Your task to perform on an android device: make emails show in primary in the gmail app Image 0: 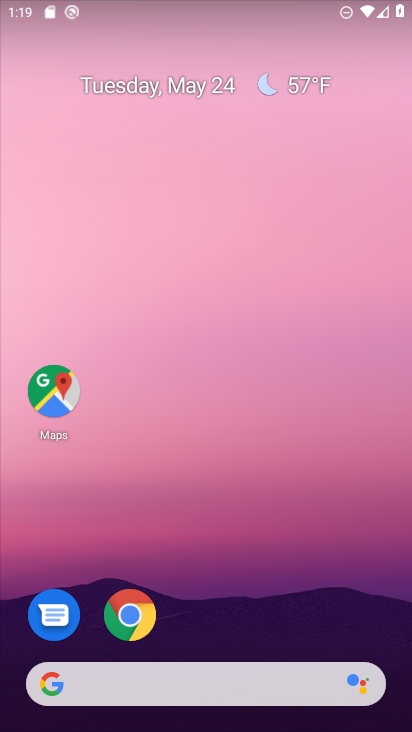
Step 0: drag from (179, 669) to (167, 271)
Your task to perform on an android device: make emails show in primary in the gmail app Image 1: 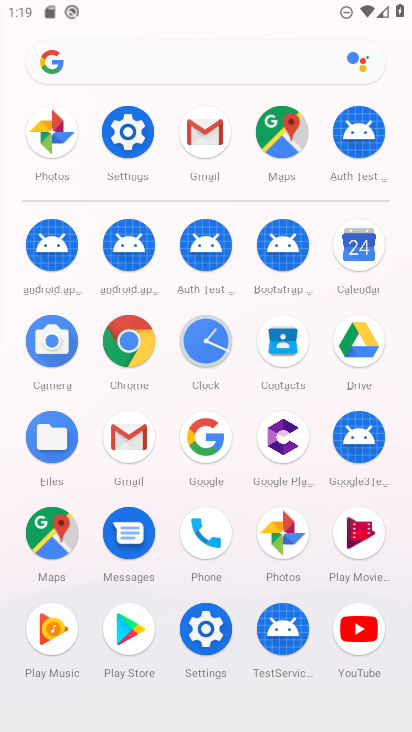
Step 1: click (124, 447)
Your task to perform on an android device: make emails show in primary in the gmail app Image 2: 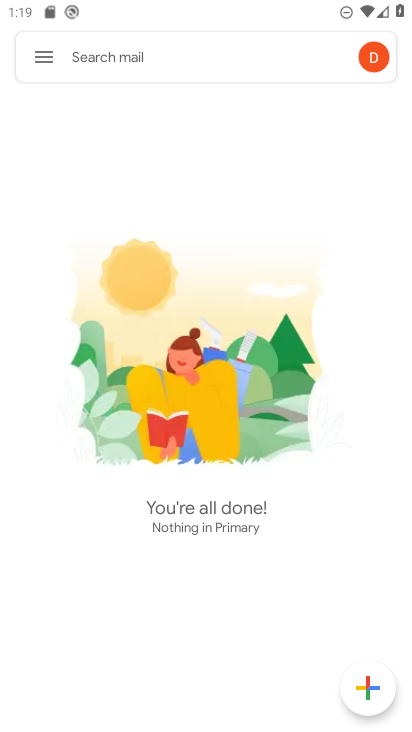
Step 2: click (47, 59)
Your task to perform on an android device: make emails show in primary in the gmail app Image 3: 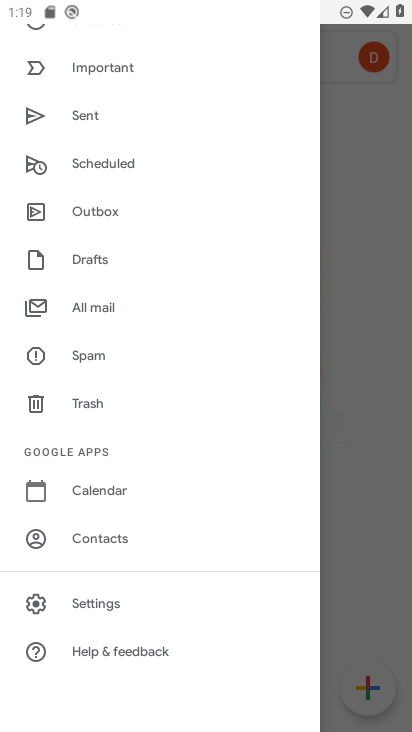
Step 3: click (92, 604)
Your task to perform on an android device: make emails show in primary in the gmail app Image 4: 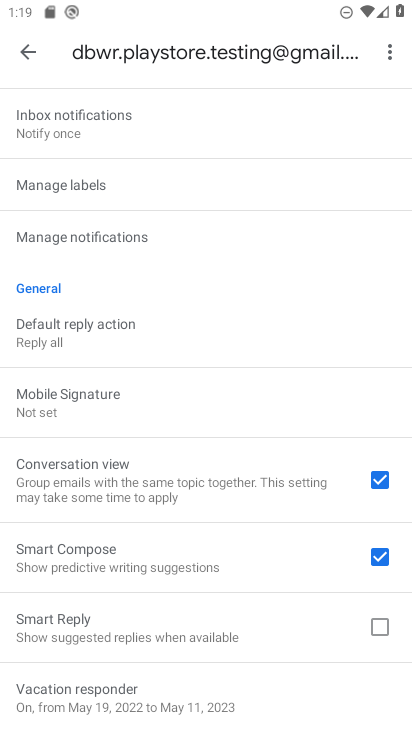
Step 4: click (92, 123)
Your task to perform on an android device: make emails show in primary in the gmail app Image 5: 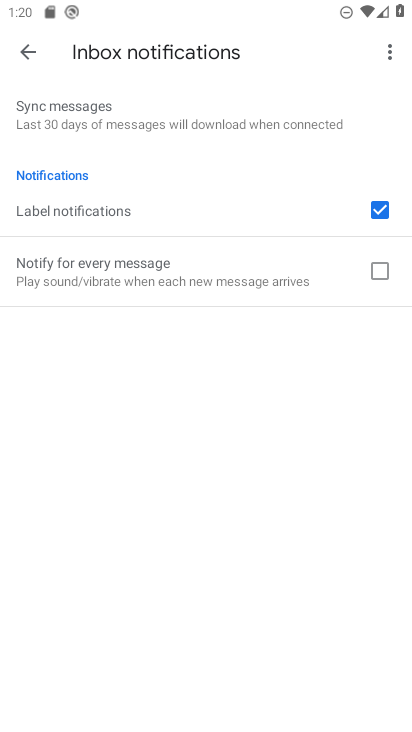
Step 5: click (16, 54)
Your task to perform on an android device: make emails show in primary in the gmail app Image 6: 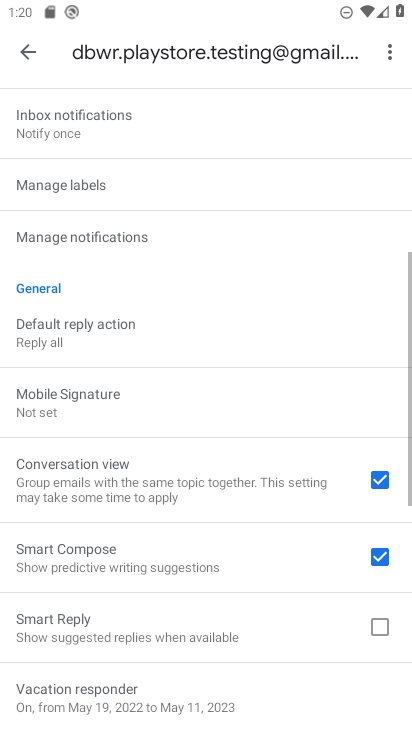
Step 6: drag from (88, 116) to (74, 571)
Your task to perform on an android device: make emails show in primary in the gmail app Image 7: 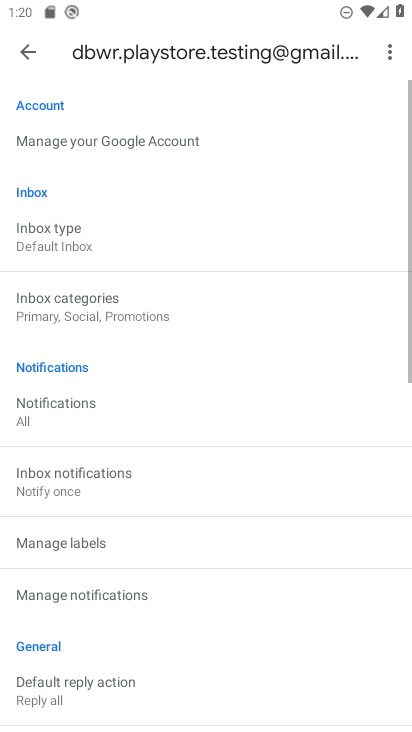
Step 7: click (56, 230)
Your task to perform on an android device: make emails show in primary in the gmail app Image 8: 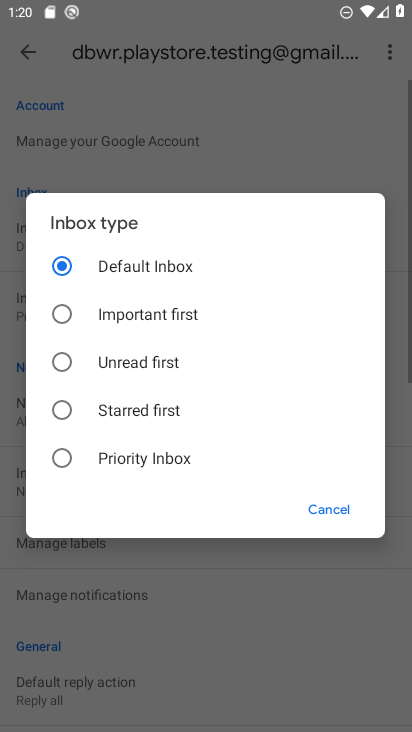
Step 8: click (81, 263)
Your task to perform on an android device: make emails show in primary in the gmail app Image 9: 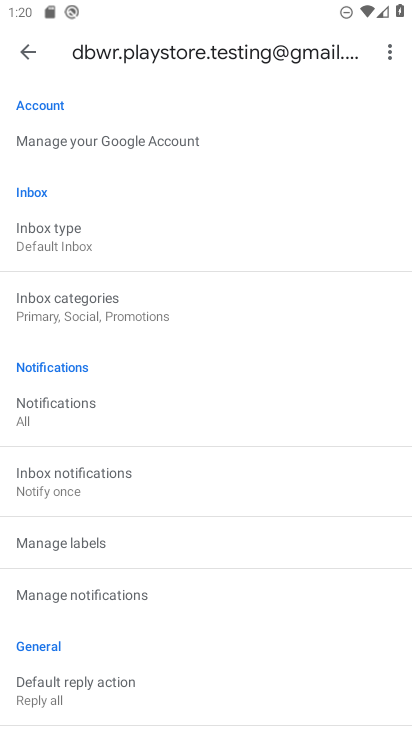
Step 9: click (84, 307)
Your task to perform on an android device: make emails show in primary in the gmail app Image 10: 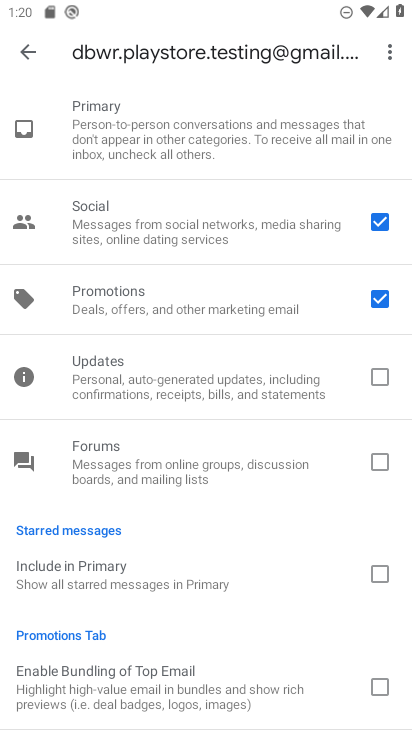
Step 10: click (388, 300)
Your task to perform on an android device: make emails show in primary in the gmail app Image 11: 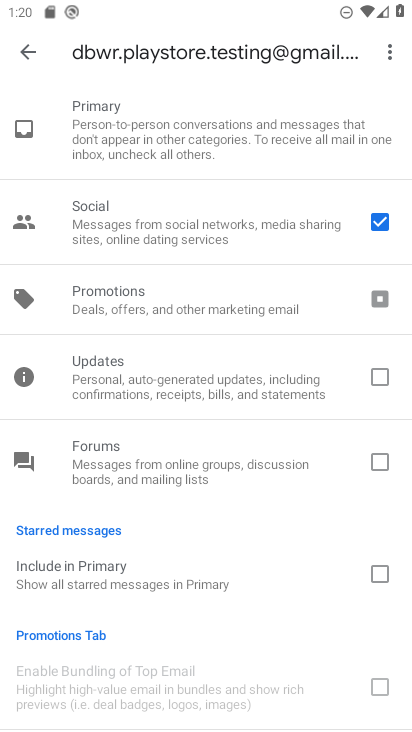
Step 11: click (384, 222)
Your task to perform on an android device: make emails show in primary in the gmail app Image 12: 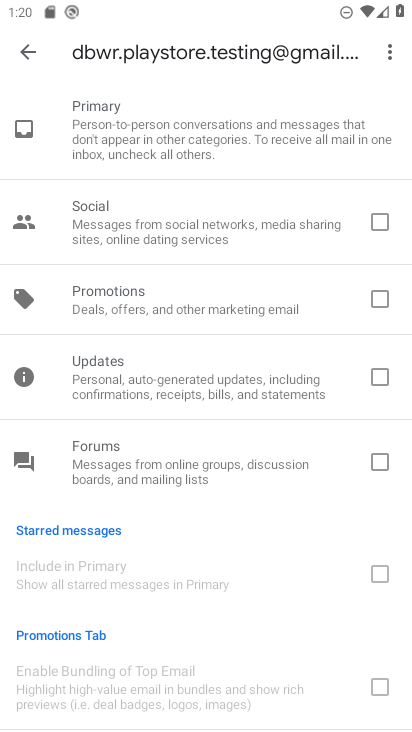
Step 12: click (20, 45)
Your task to perform on an android device: make emails show in primary in the gmail app Image 13: 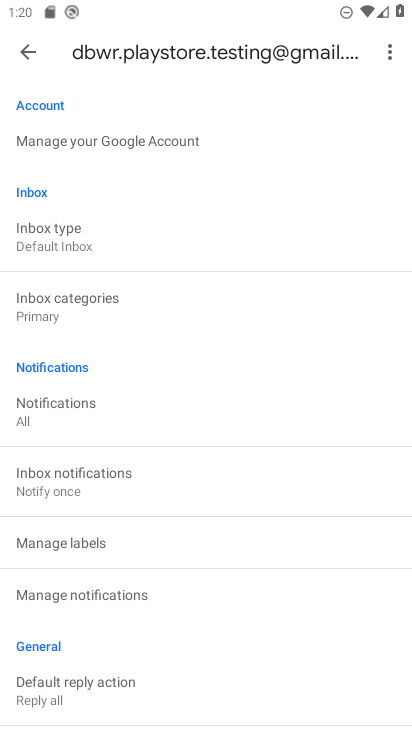
Step 13: task complete